Your task to perform on an android device: Open the calculator app Image 0: 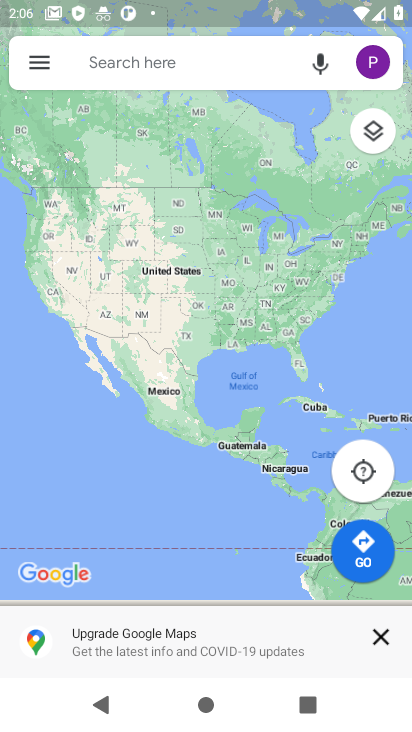
Step 0: press home button
Your task to perform on an android device: Open the calculator app Image 1: 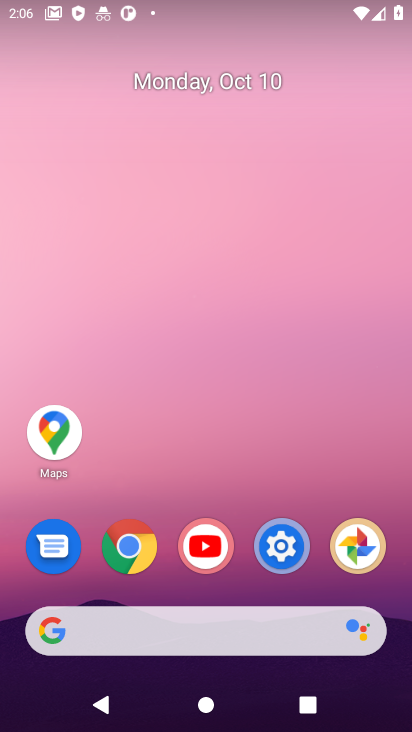
Step 1: task complete